Your task to perform on an android device: check storage Image 0: 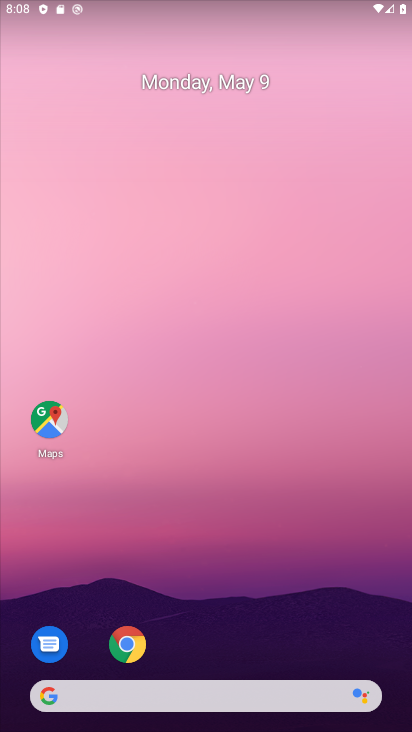
Step 0: drag from (213, 554) to (205, 346)
Your task to perform on an android device: check storage Image 1: 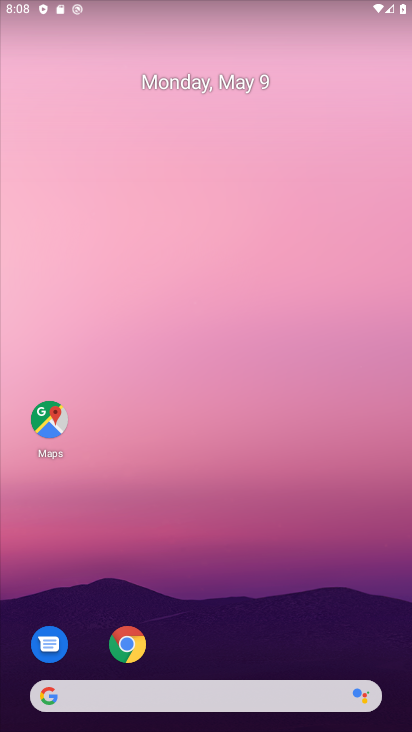
Step 1: drag from (205, 570) to (210, 191)
Your task to perform on an android device: check storage Image 2: 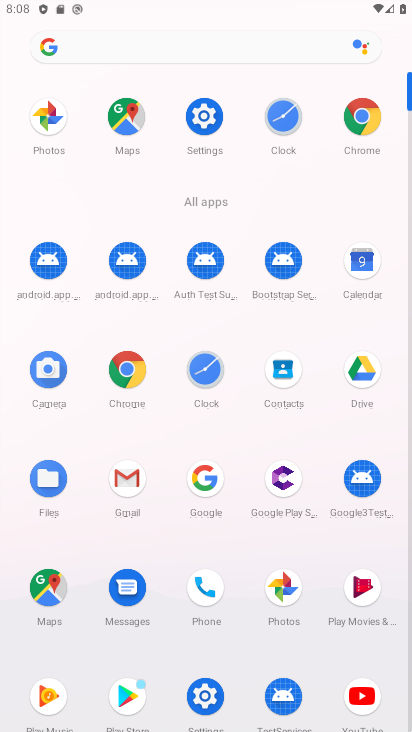
Step 2: click (193, 129)
Your task to perform on an android device: check storage Image 3: 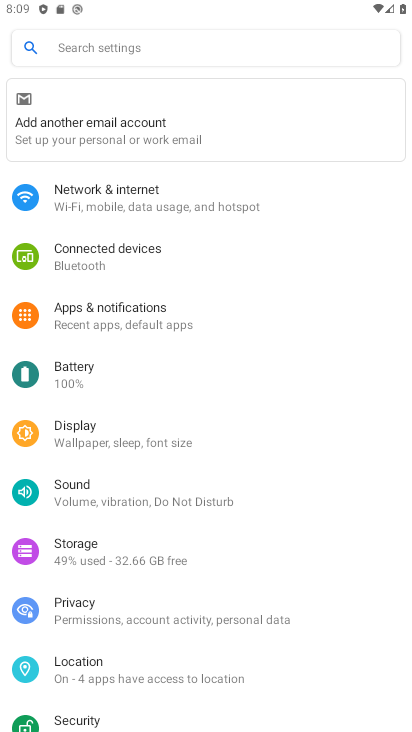
Step 3: click (126, 550)
Your task to perform on an android device: check storage Image 4: 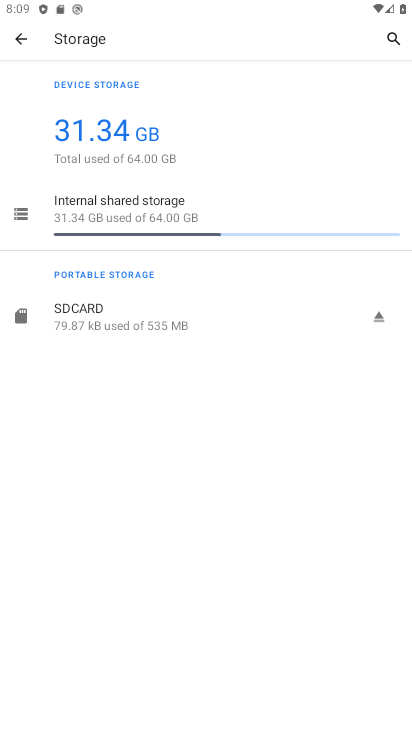
Step 4: task complete